Your task to perform on an android device: What's the weather going to be this weekend? Image 0: 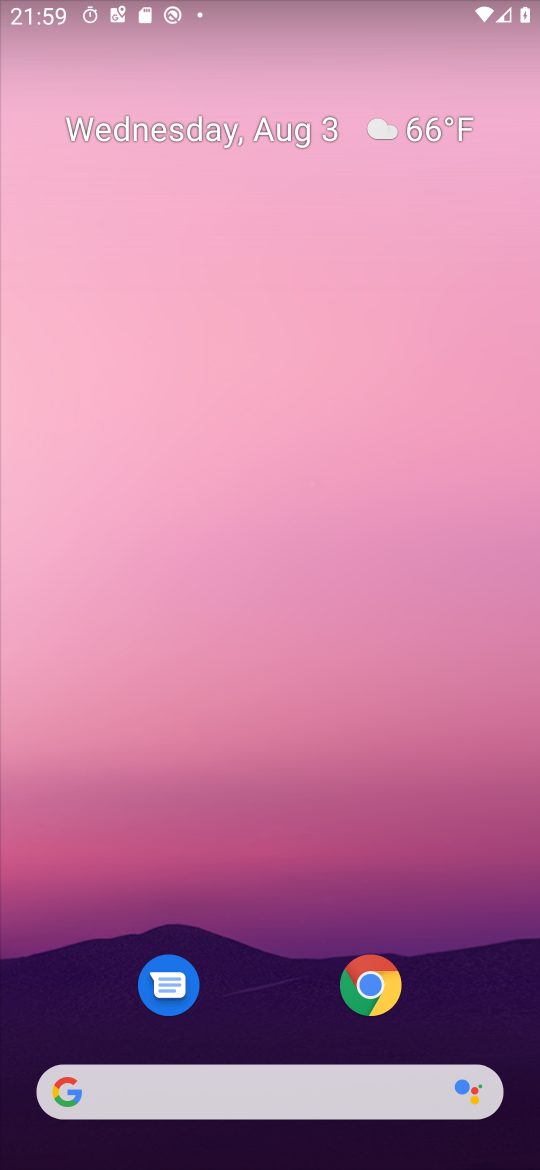
Step 0: drag from (264, 952) to (207, 215)
Your task to perform on an android device: What's the weather going to be this weekend? Image 1: 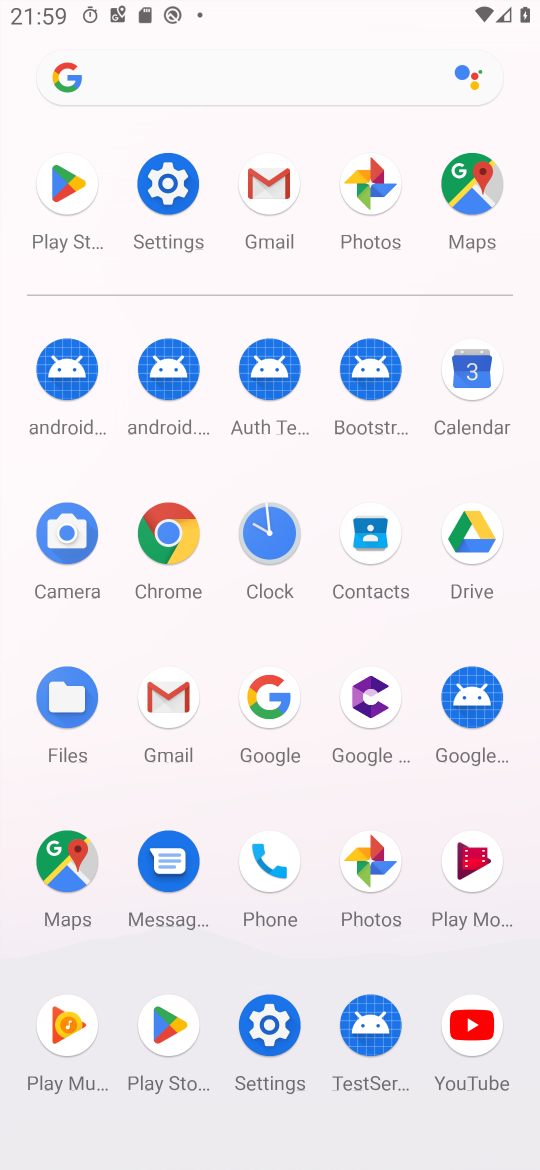
Step 1: click (259, 675)
Your task to perform on an android device: What's the weather going to be this weekend? Image 2: 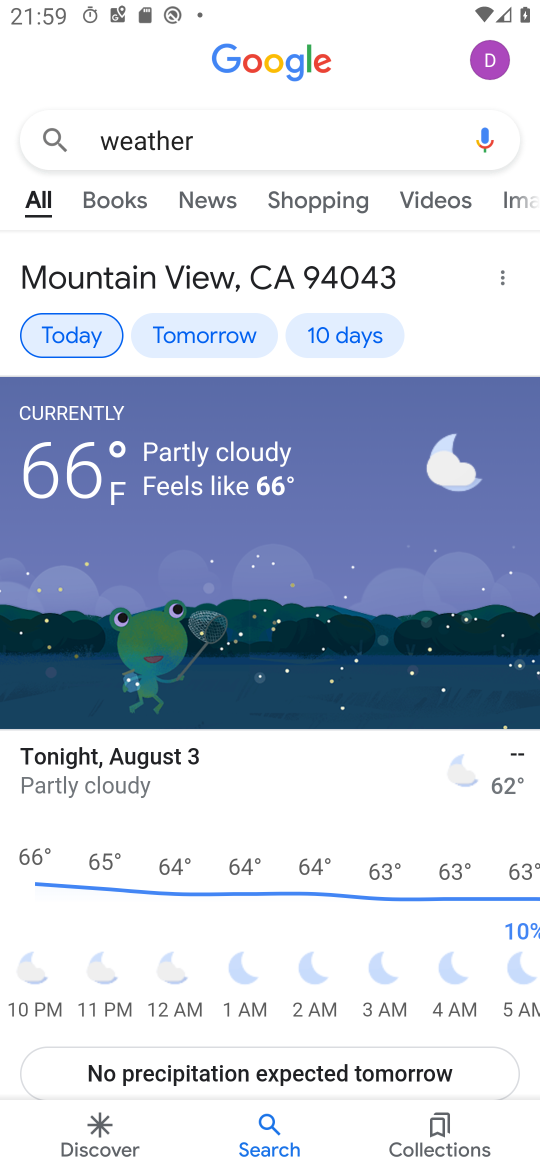
Step 2: click (310, 326)
Your task to perform on an android device: What's the weather going to be this weekend? Image 3: 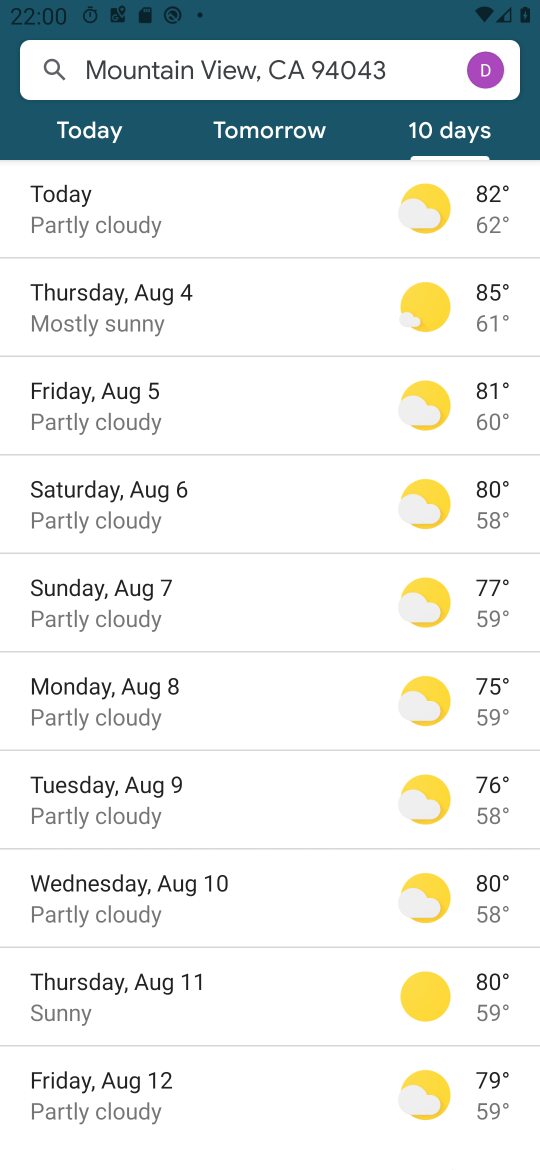
Step 3: task complete